Your task to perform on an android device: add a label to a message in the gmail app Image 0: 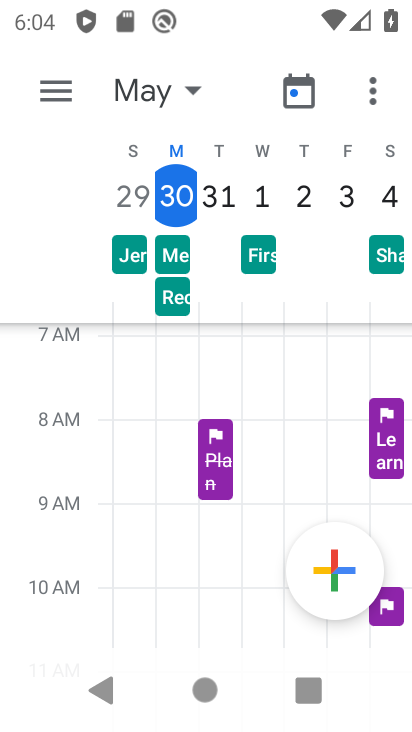
Step 0: press home button
Your task to perform on an android device: add a label to a message in the gmail app Image 1: 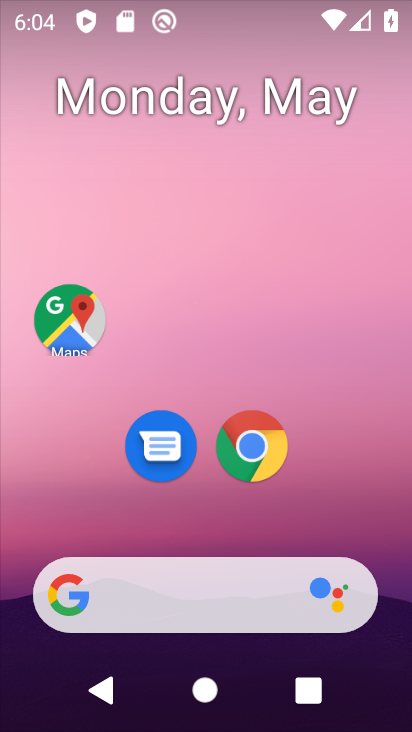
Step 1: drag from (334, 485) to (248, 127)
Your task to perform on an android device: add a label to a message in the gmail app Image 2: 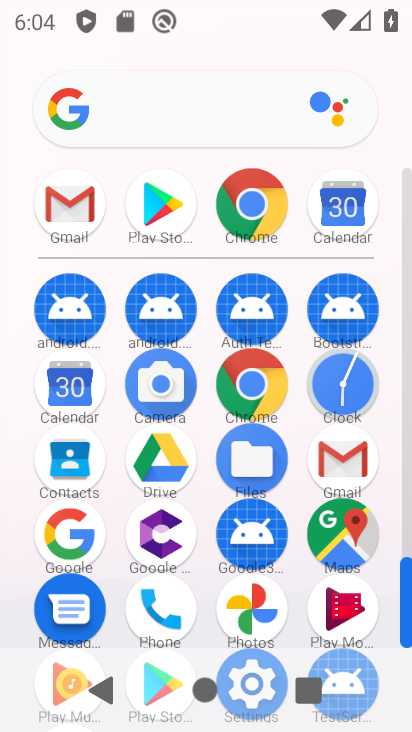
Step 2: click (65, 198)
Your task to perform on an android device: add a label to a message in the gmail app Image 3: 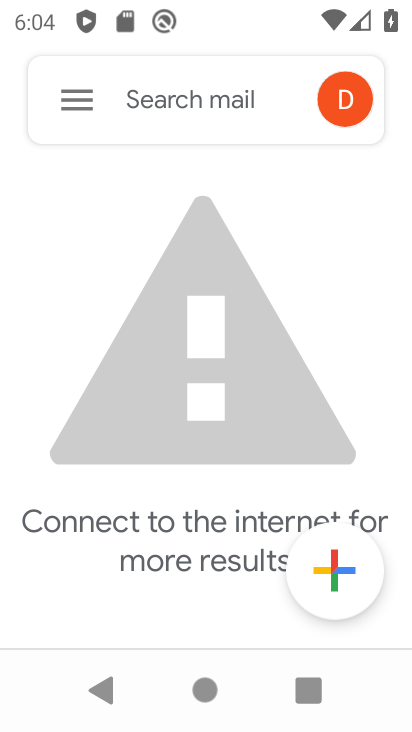
Step 3: click (75, 90)
Your task to perform on an android device: add a label to a message in the gmail app Image 4: 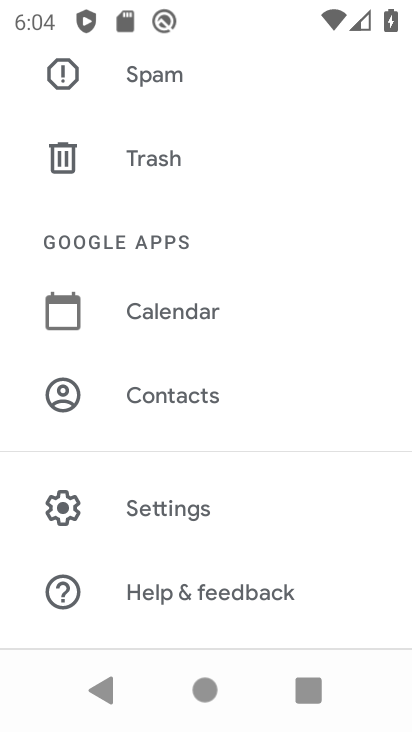
Step 4: drag from (215, 200) to (321, 414)
Your task to perform on an android device: add a label to a message in the gmail app Image 5: 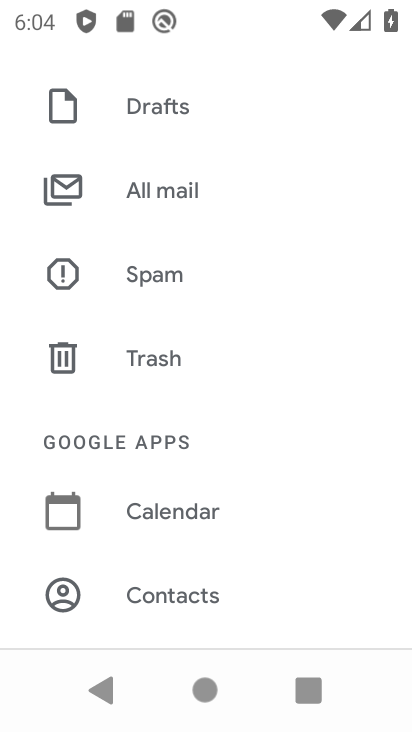
Step 5: click (176, 190)
Your task to perform on an android device: add a label to a message in the gmail app Image 6: 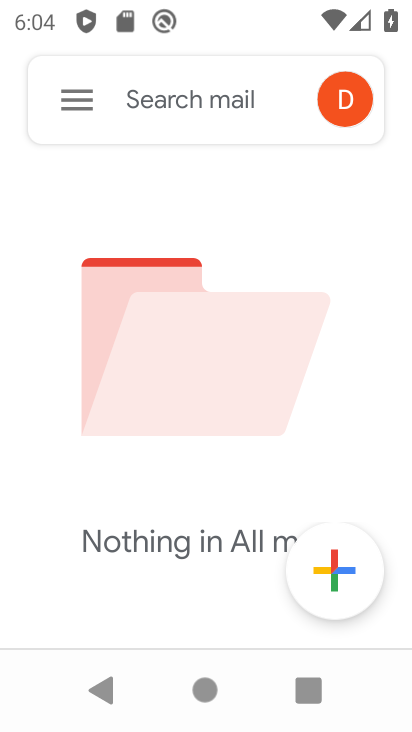
Step 6: task complete